Your task to perform on an android device: turn off sleep mode Image 0: 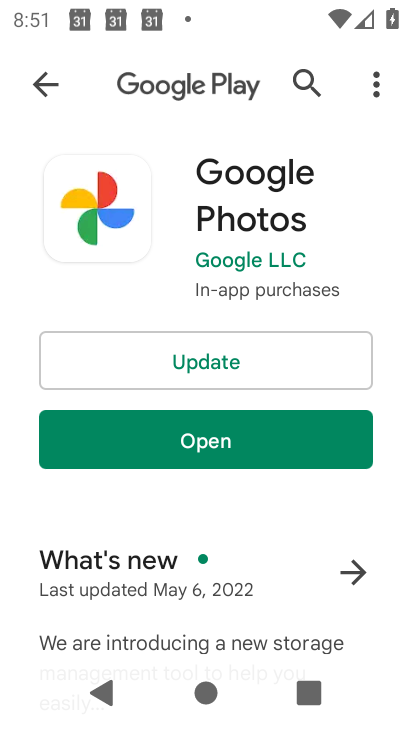
Step 0: press home button
Your task to perform on an android device: turn off sleep mode Image 1: 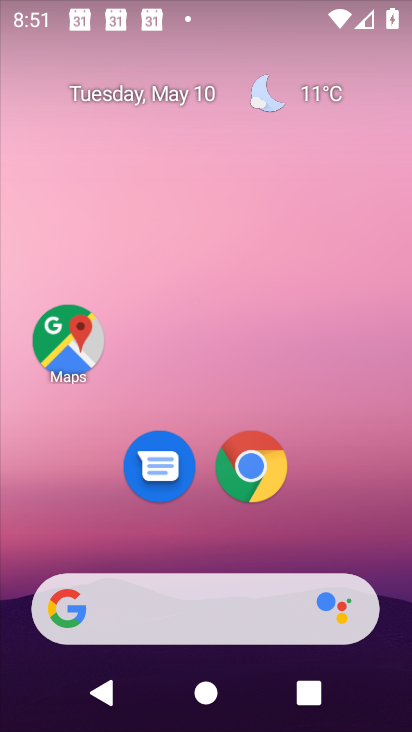
Step 1: drag from (191, 544) to (270, 35)
Your task to perform on an android device: turn off sleep mode Image 2: 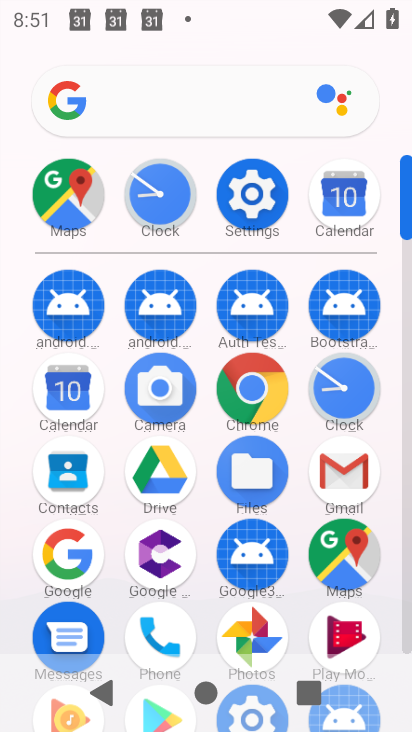
Step 2: click (264, 202)
Your task to perform on an android device: turn off sleep mode Image 3: 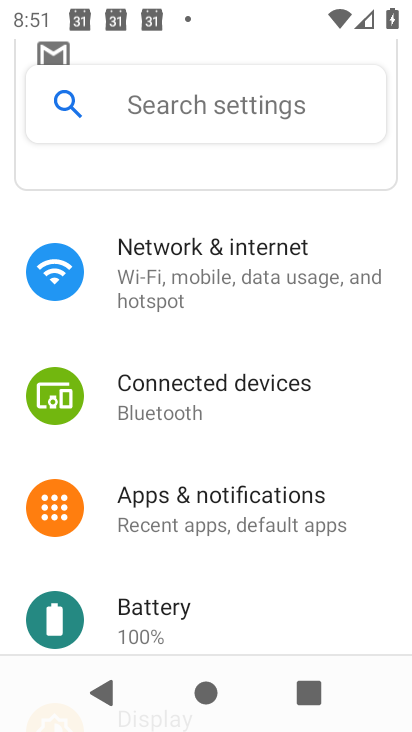
Step 3: click (227, 117)
Your task to perform on an android device: turn off sleep mode Image 4: 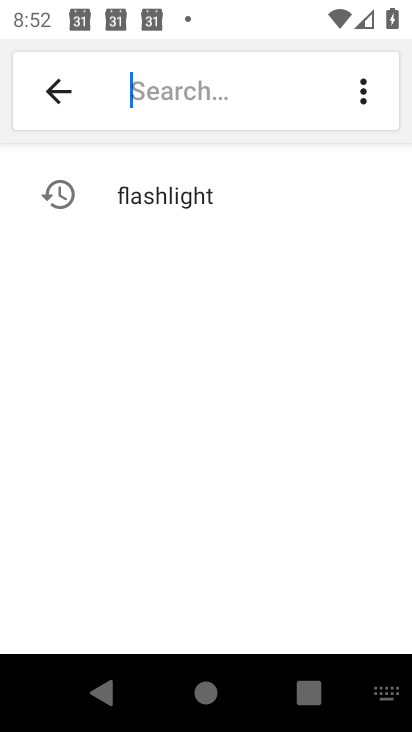
Step 4: type "sleep mode"
Your task to perform on an android device: turn off sleep mode Image 5: 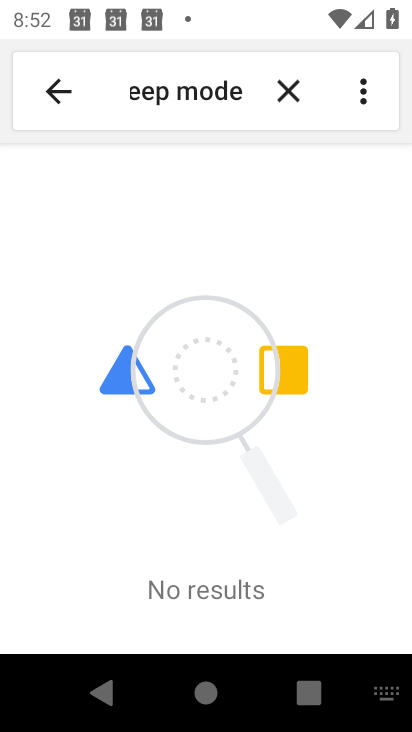
Step 5: task complete